Your task to perform on an android device: turn off notifications settings in the gmail app Image 0: 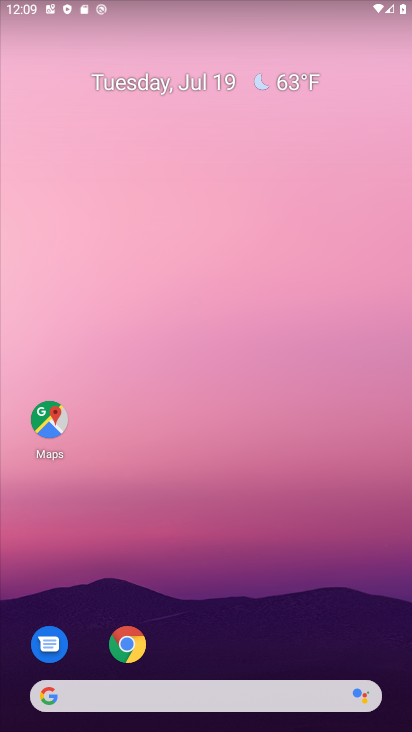
Step 0: drag from (234, 638) to (234, 44)
Your task to perform on an android device: turn off notifications settings in the gmail app Image 1: 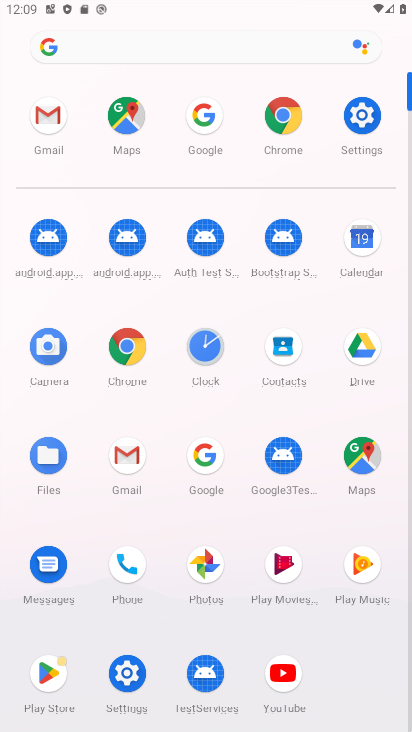
Step 1: click (134, 453)
Your task to perform on an android device: turn off notifications settings in the gmail app Image 2: 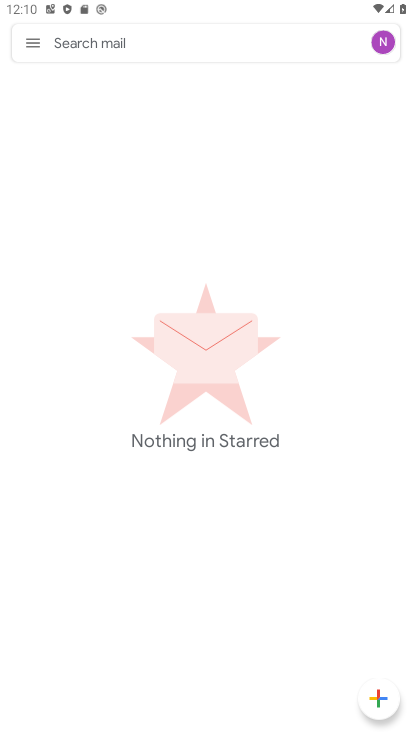
Step 2: click (30, 42)
Your task to perform on an android device: turn off notifications settings in the gmail app Image 3: 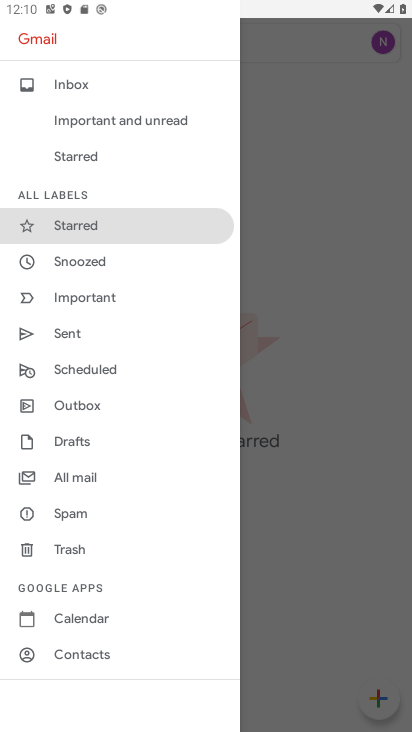
Step 3: drag from (90, 629) to (90, 389)
Your task to perform on an android device: turn off notifications settings in the gmail app Image 4: 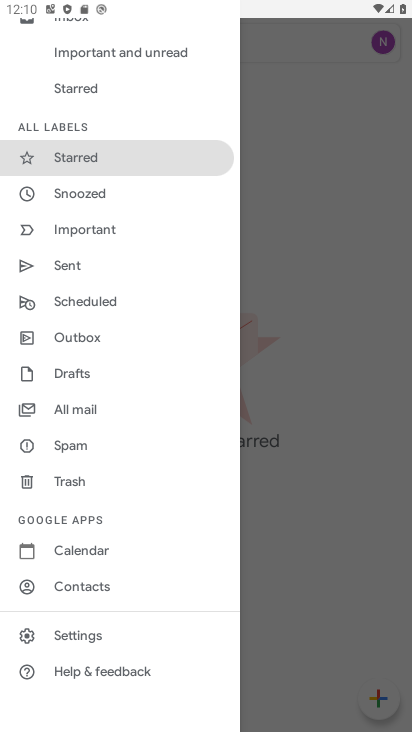
Step 4: click (84, 634)
Your task to perform on an android device: turn off notifications settings in the gmail app Image 5: 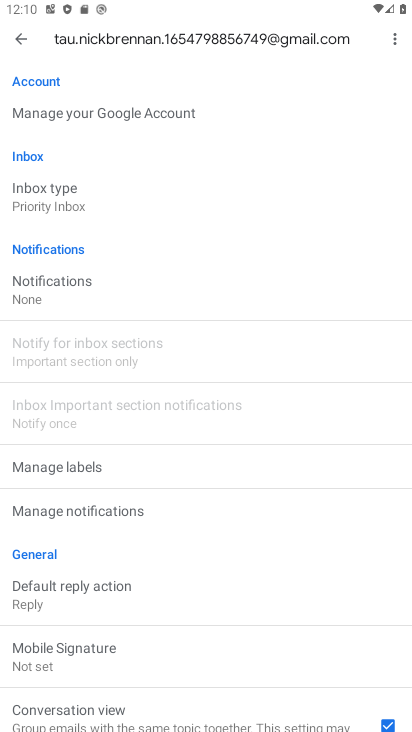
Step 5: task complete